Your task to perform on an android device: toggle location history Image 0: 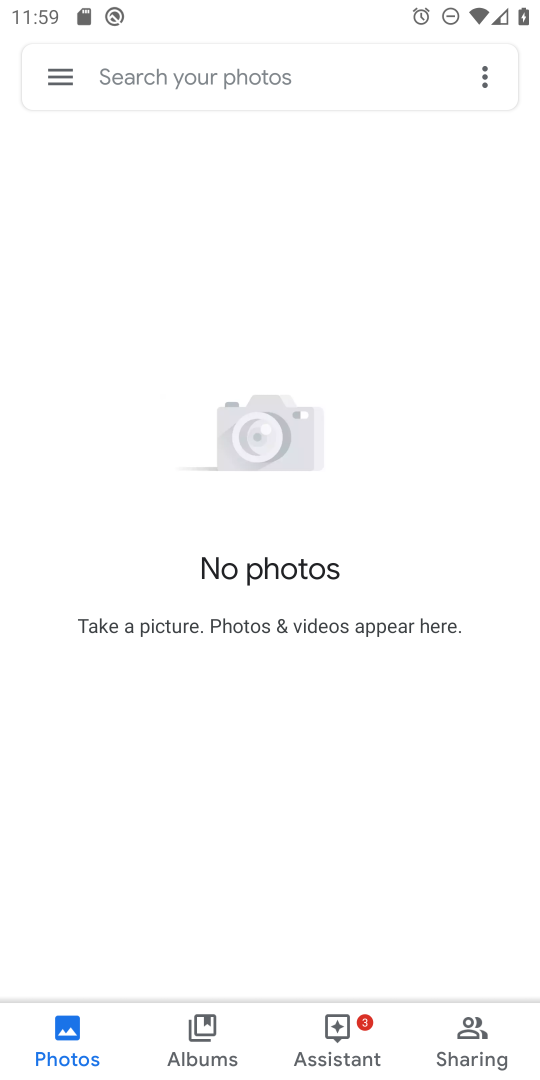
Step 0: drag from (264, 910) to (333, 30)
Your task to perform on an android device: toggle location history Image 1: 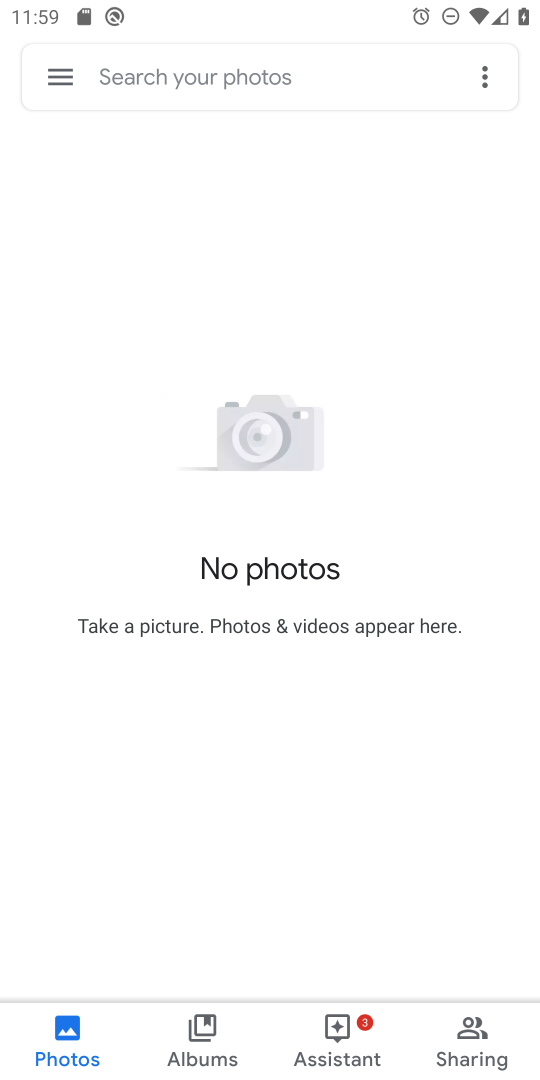
Step 1: press home button
Your task to perform on an android device: toggle location history Image 2: 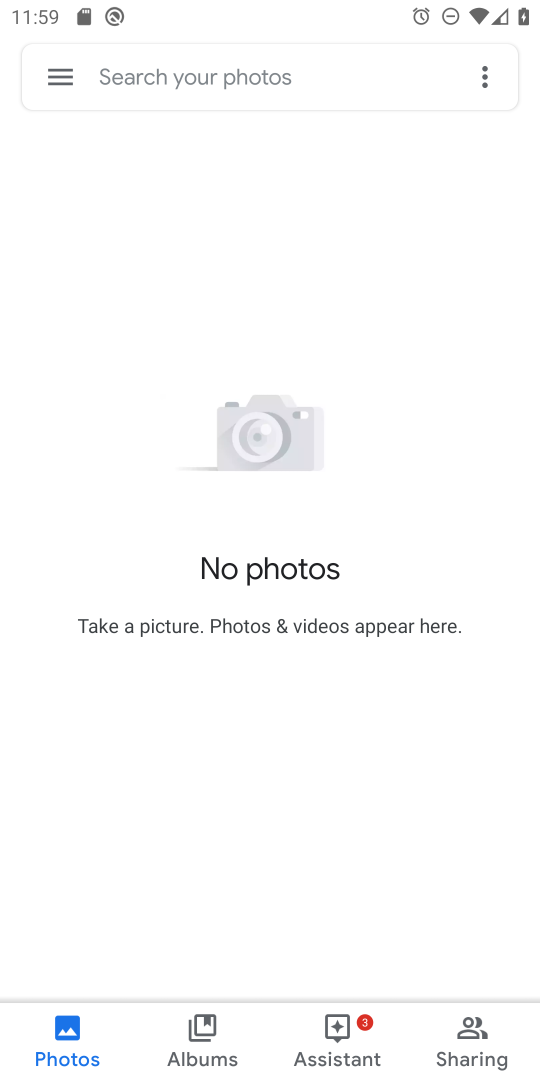
Step 2: press home button
Your task to perform on an android device: toggle location history Image 3: 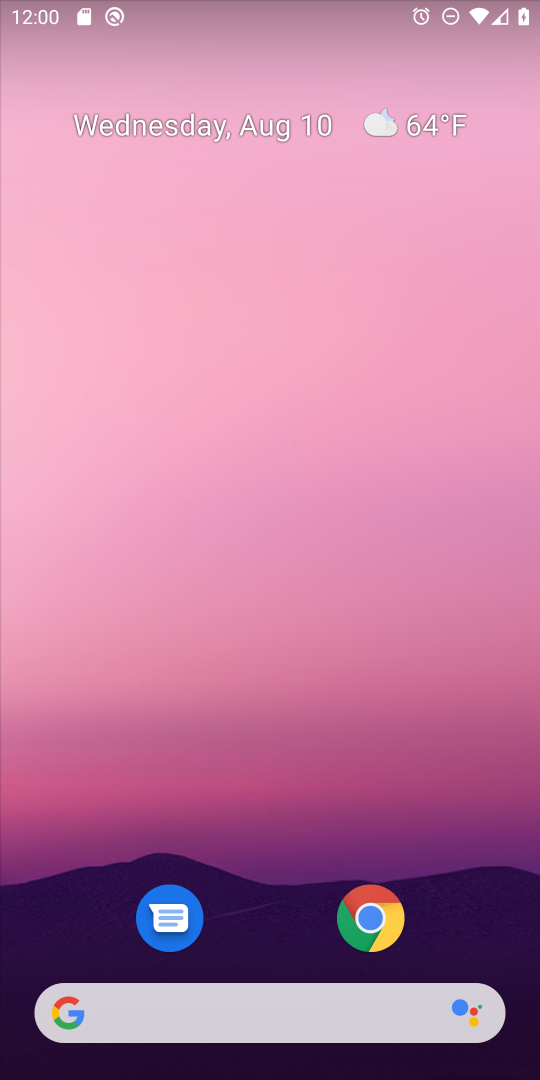
Step 3: drag from (269, 928) to (307, 135)
Your task to perform on an android device: toggle location history Image 4: 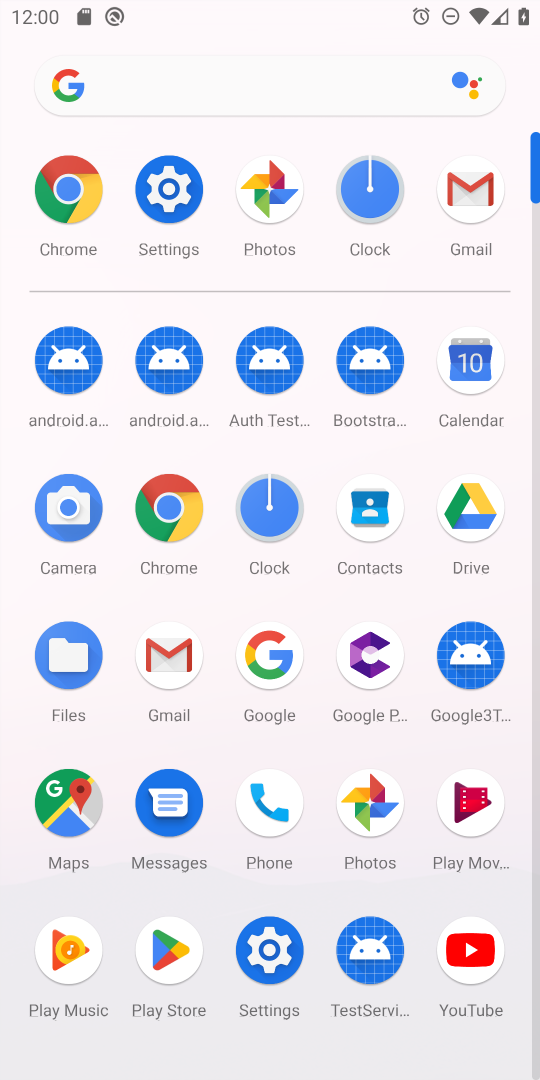
Step 4: click (270, 963)
Your task to perform on an android device: toggle location history Image 5: 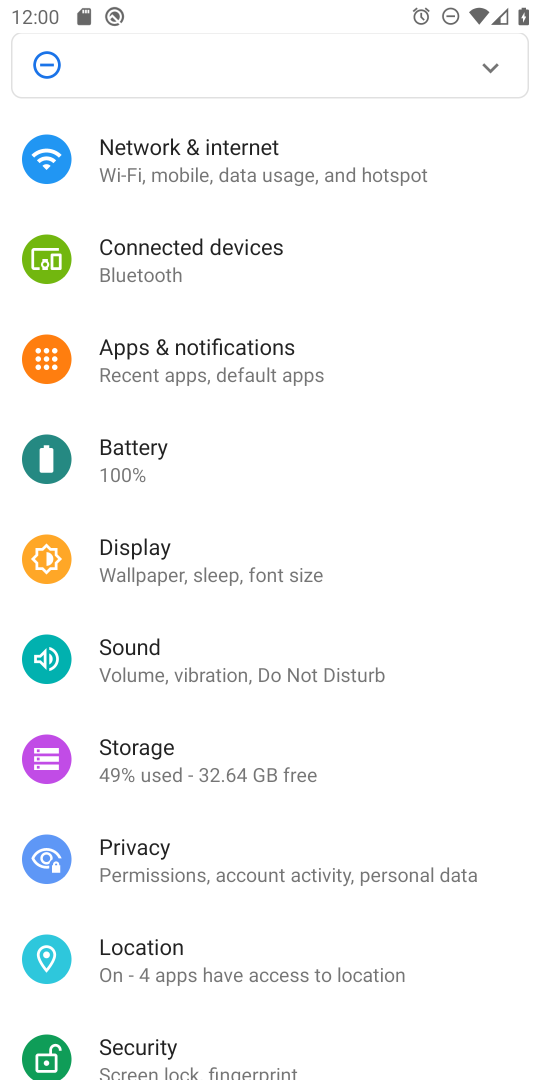
Step 5: click (198, 947)
Your task to perform on an android device: toggle location history Image 6: 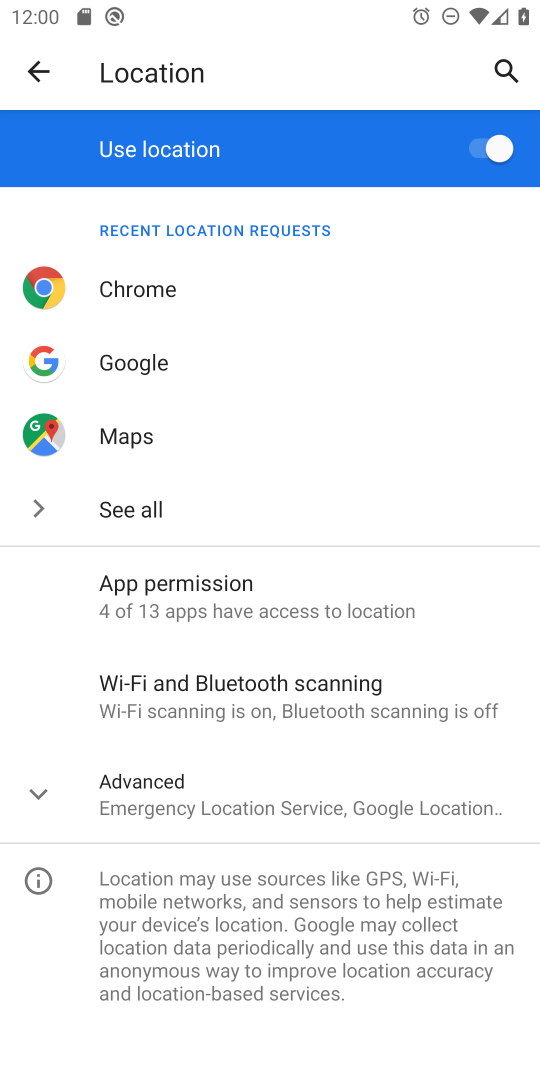
Step 6: click (210, 821)
Your task to perform on an android device: toggle location history Image 7: 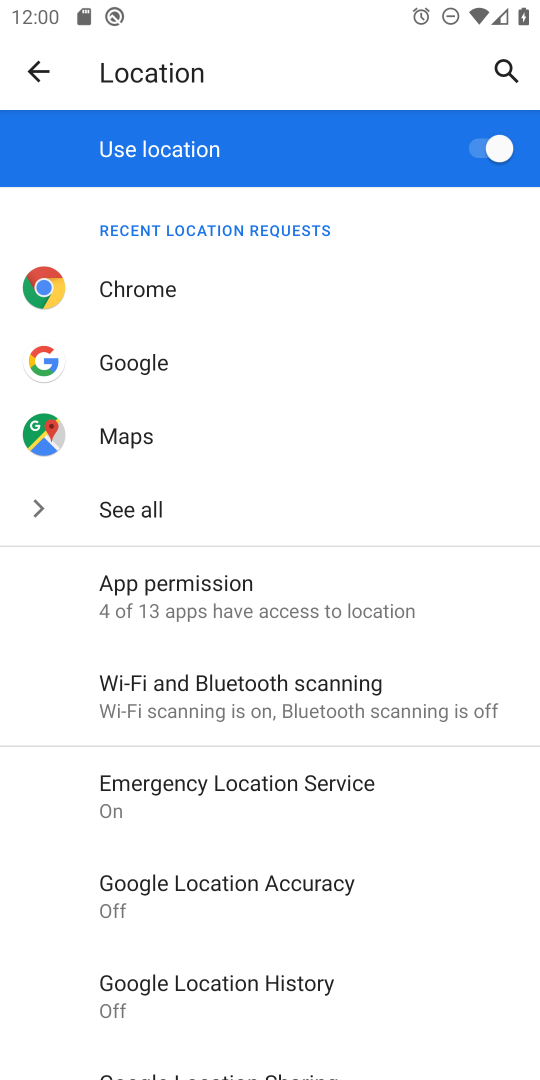
Step 7: click (253, 987)
Your task to perform on an android device: toggle location history Image 8: 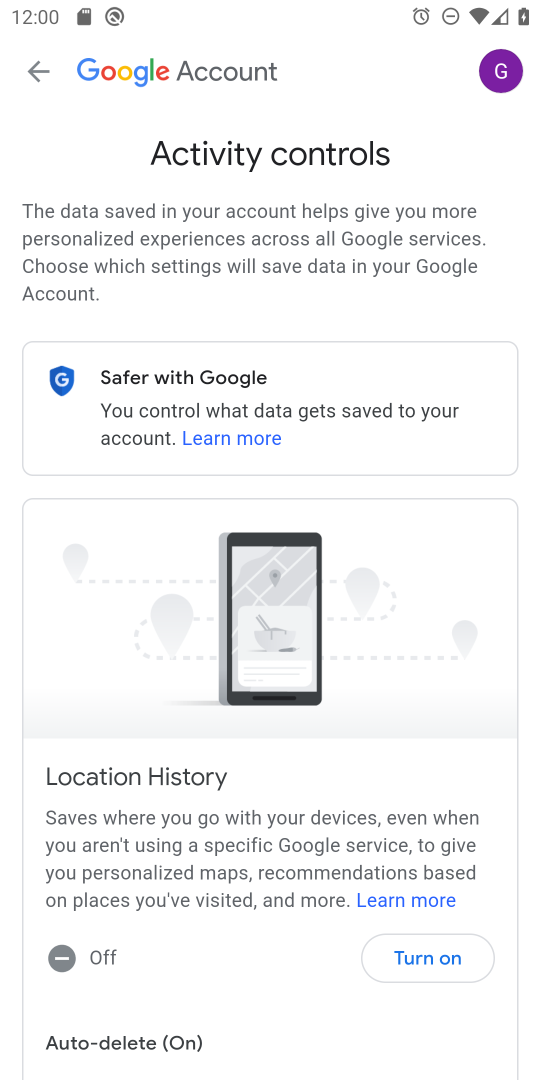
Step 8: click (402, 952)
Your task to perform on an android device: toggle location history Image 9: 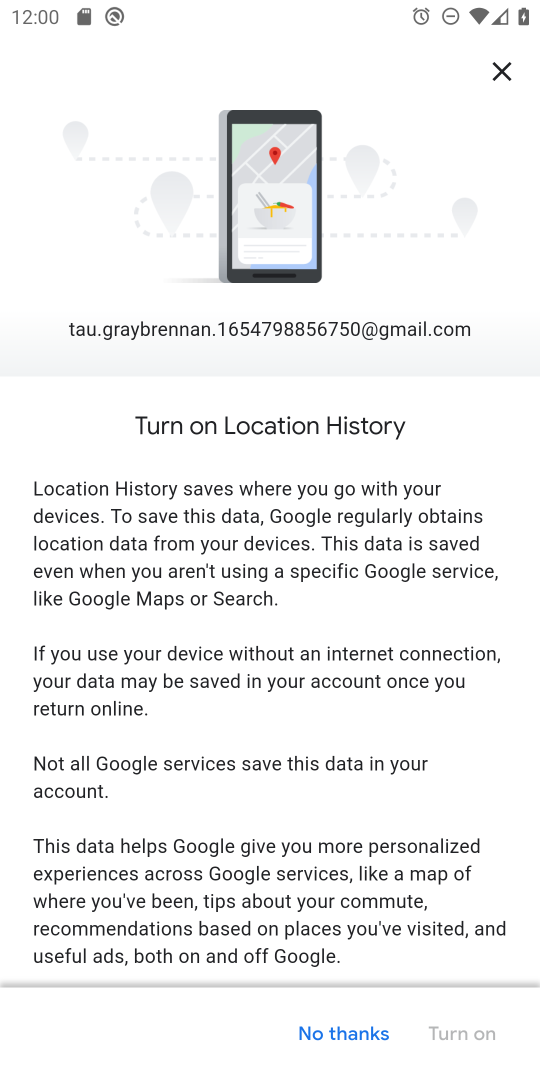
Step 9: click (353, 292)
Your task to perform on an android device: toggle location history Image 10: 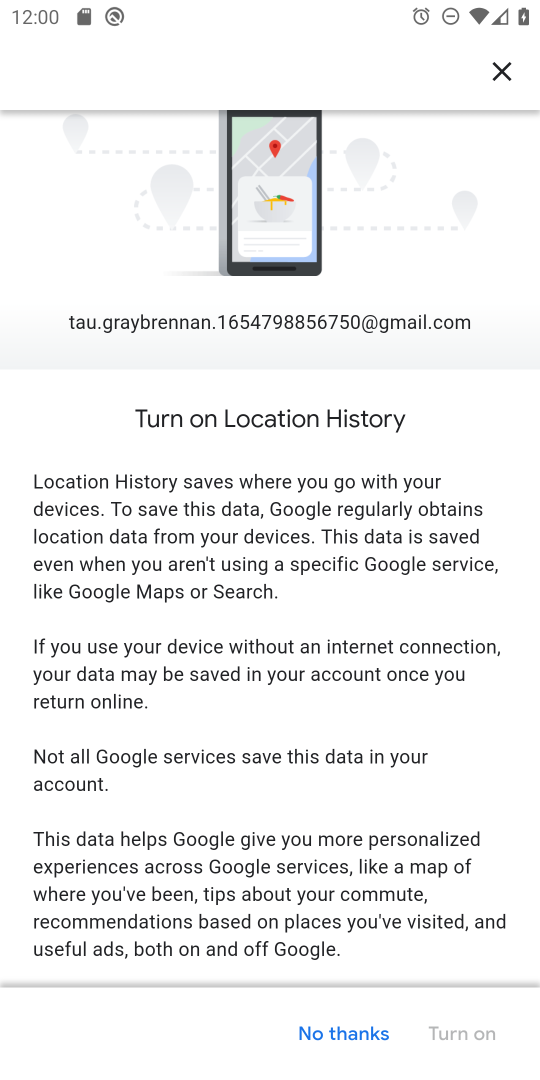
Step 10: drag from (430, 882) to (440, 340)
Your task to perform on an android device: toggle location history Image 11: 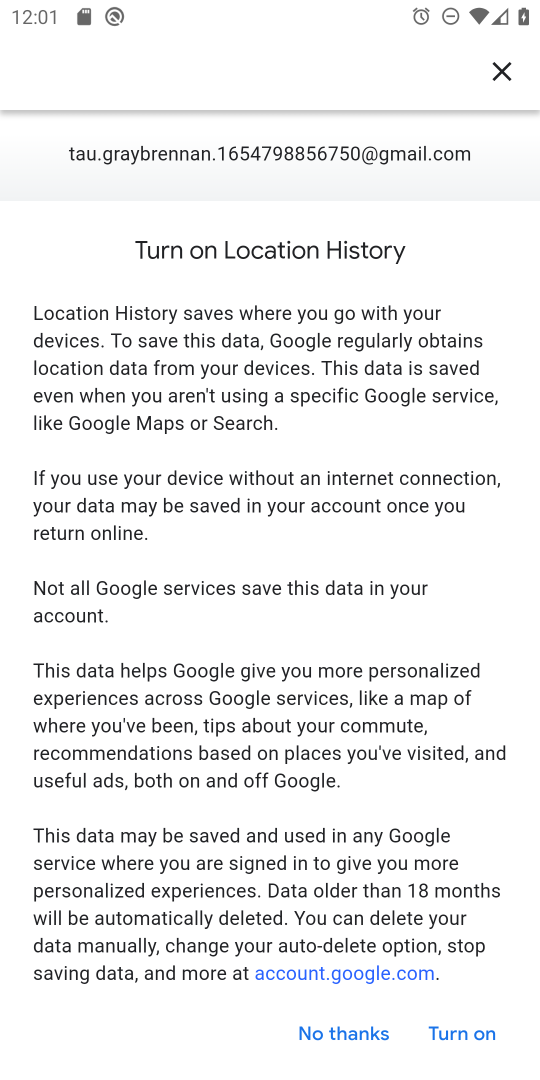
Step 11: drag from (184, 905) to (266, 393)
Your task to perform on an android device: toggle location history Image 12: 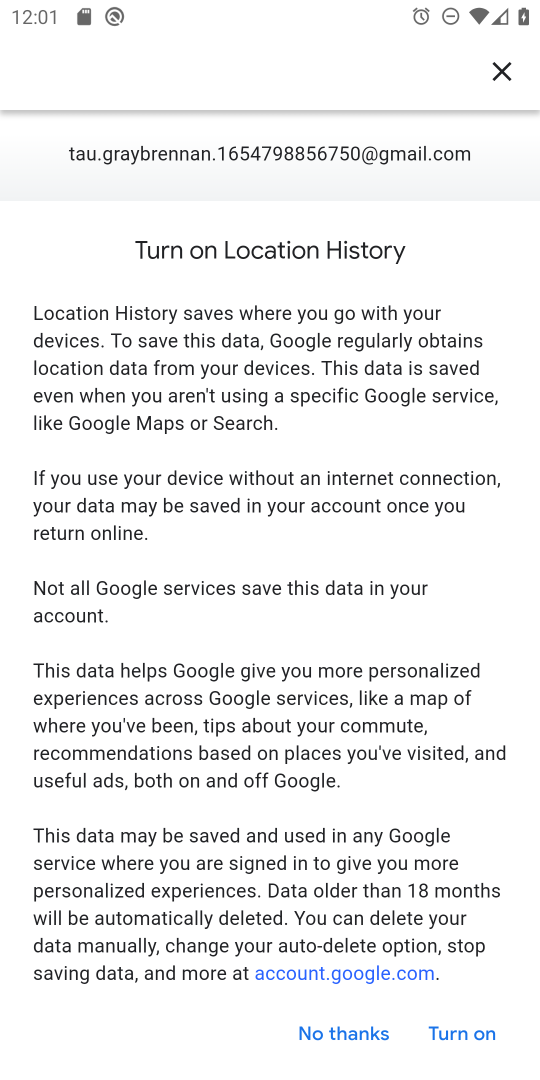
Step 12: click (454, 1025)
Your task to perform on an android device: toggle location history Image 13: 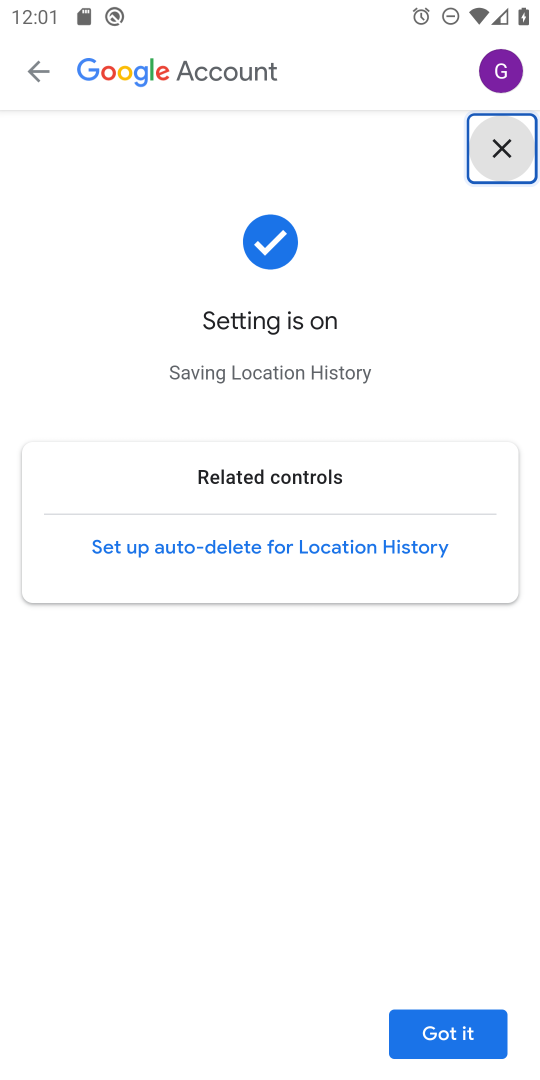
Step 13: click (464, 1037)
Your task to perform on an android device: toggle location history Image 14: 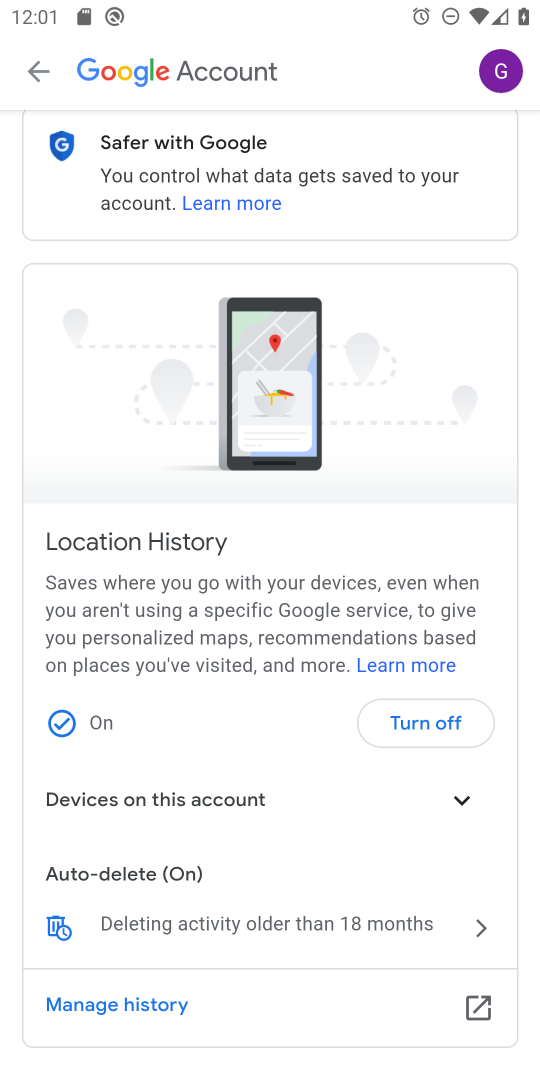
Step 14: task complete